Your task to perform on an android device: Go to internet settings Image 0: 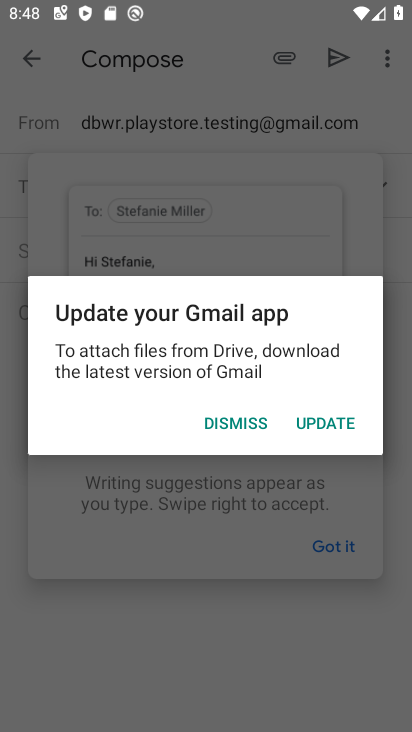
Step 0: press home button
Your task to perform on an android device: Go to internet settings Image 1: 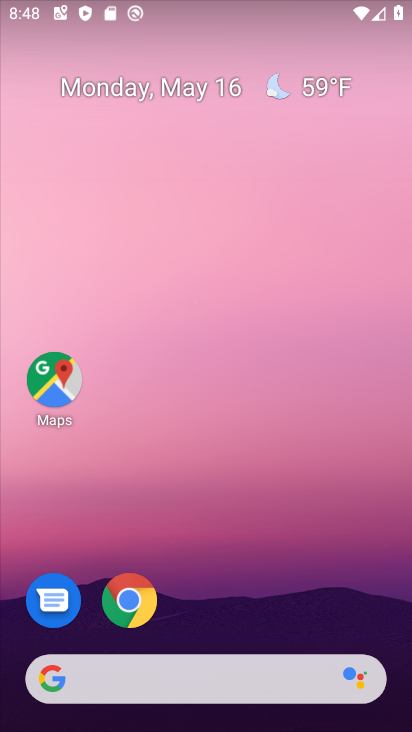
Step 1: drag from (145, 640) to (148, 456)
Your task to perform on an android device: Go to internet settings Image 2: 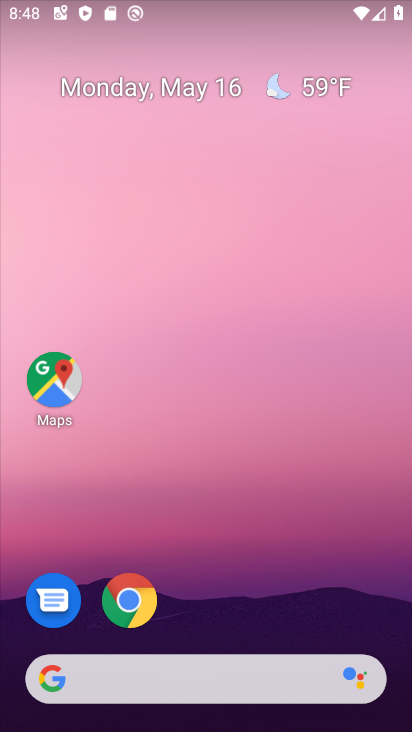
Step 2: drag from (254, 666) to (241, 282)
Your task to perform on an android device: Go to internet settings Image 3: 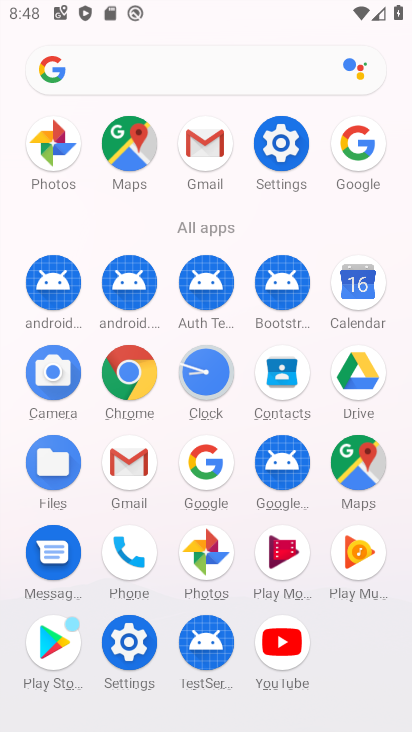
Step 3: click (282, 135)
Your task to perform on an android device: Go to internet settings Image 4: 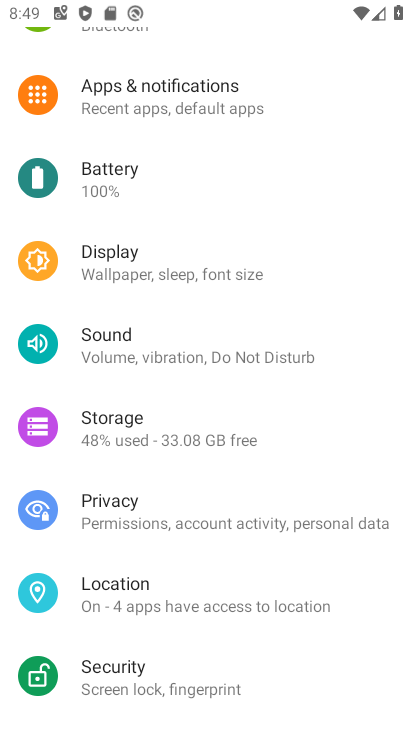
Step 4: drag from (221, 76) to (281, 498)
Your task to perform on an android device: Go to internet settings Image 5: 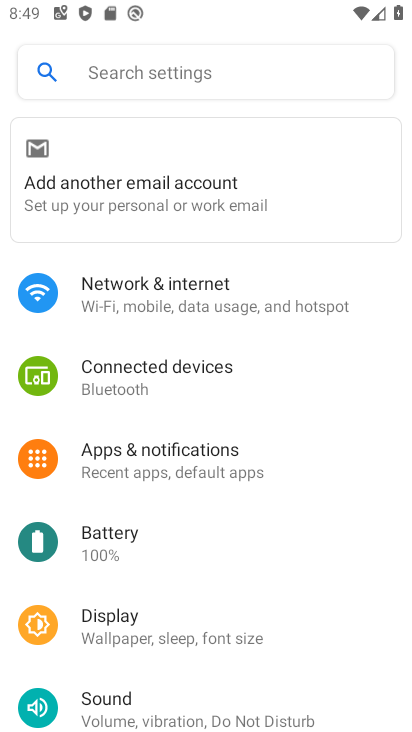
Step 5: click (195, 296)
Your task to perform on an android device: Go to internet settings Image 6: 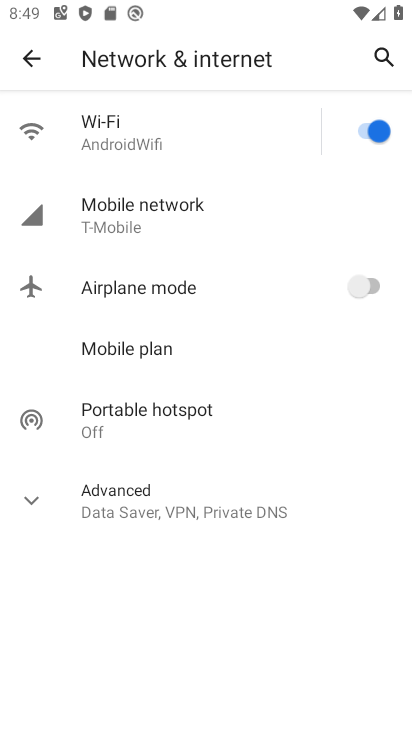
Step 6: click (149, 508)
Your task to perform on an android device: Go to internet settings Image 7: 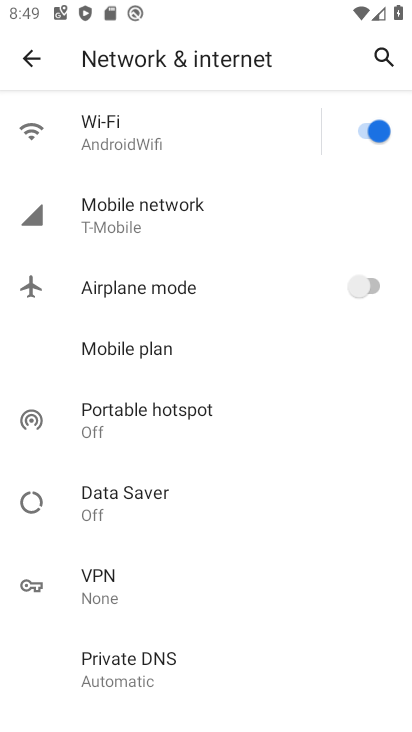
Step 7: task complete